Your task to perform on an android device: Open internet settings Image 0: 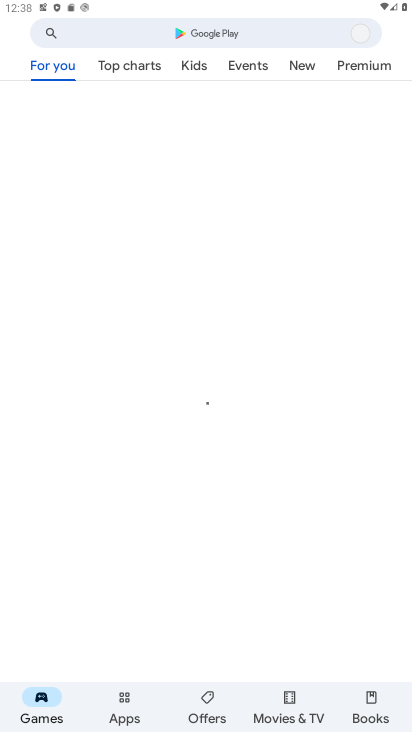
Step 0: press home button
Your task to perform on an android device: Open internet settings Image 1: 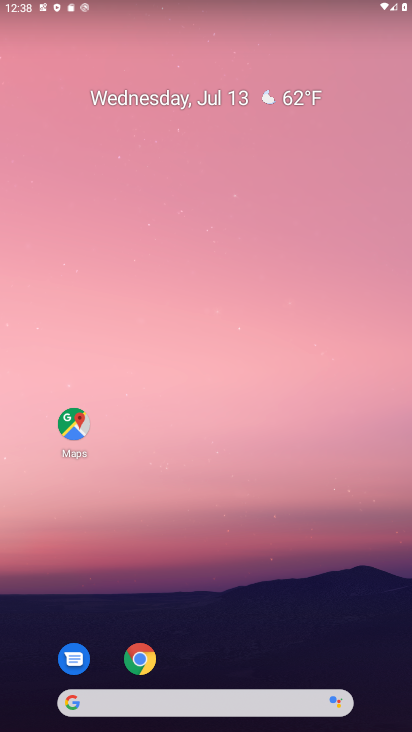
Step 1: drag from (247, 704) to (247, 596)
Your task to perform on an android device: Open internet settings Image 2: 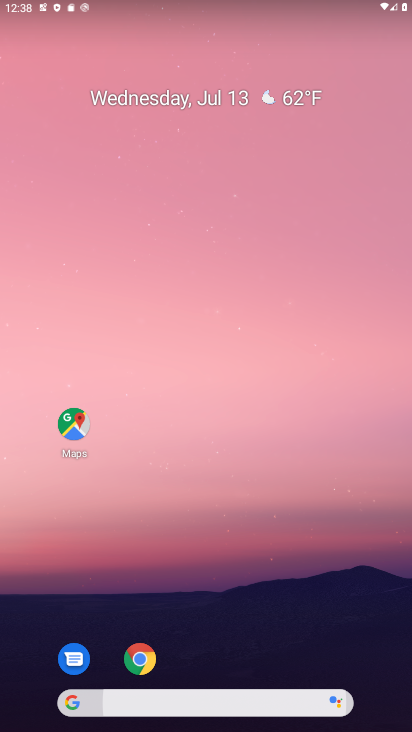
Step 2: click (249, 266)
Your task to perform on an android device: Open internet settings Image 3: 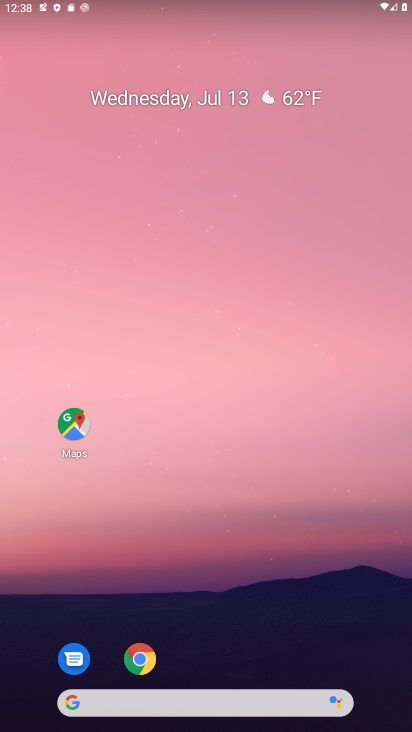
Step 3: drag from (241, 727) to (233, 80)
Your task to perform on an android device: Open internet settings Image 4: 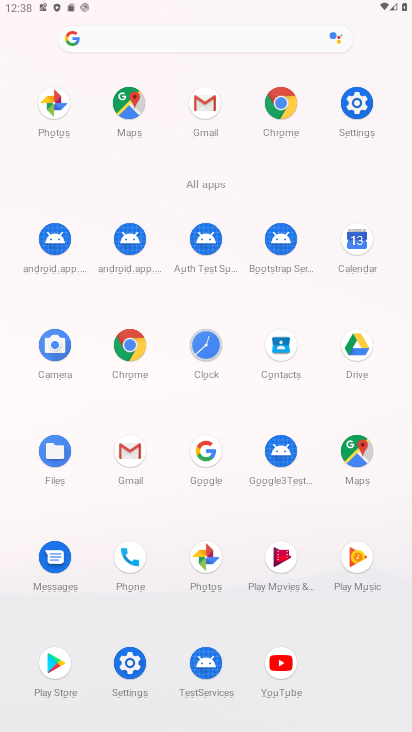
Step 4: click (356, 102)
Your task to perform on an android device: Open internet settings Image 5: 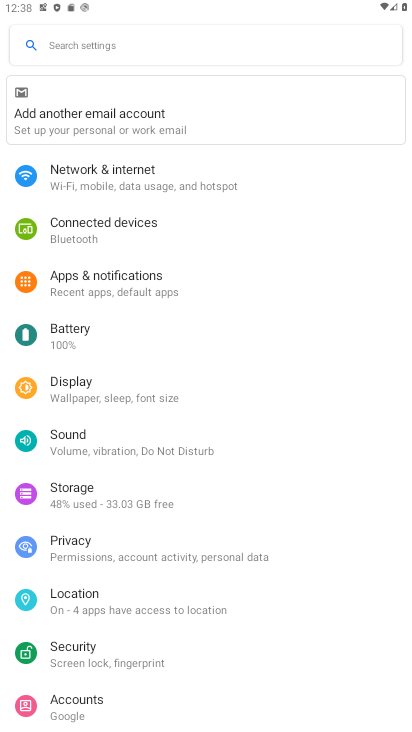
Step 5: click (116, 183)
Your task to perform on an android device: Open internet settings Image 6: 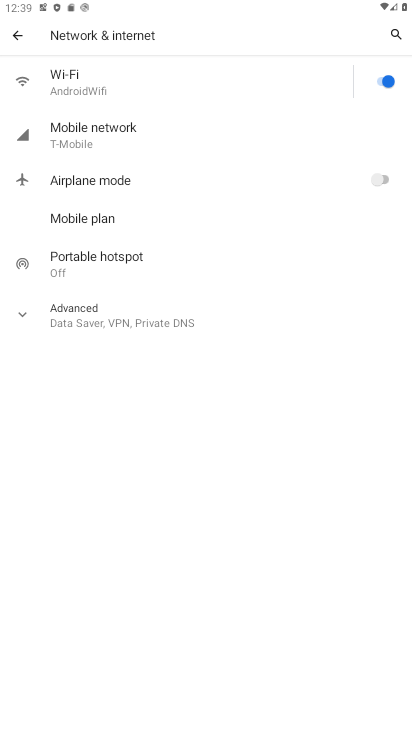
Step 6: task complete